Your task to perform on an android device: check battery use Image 0: 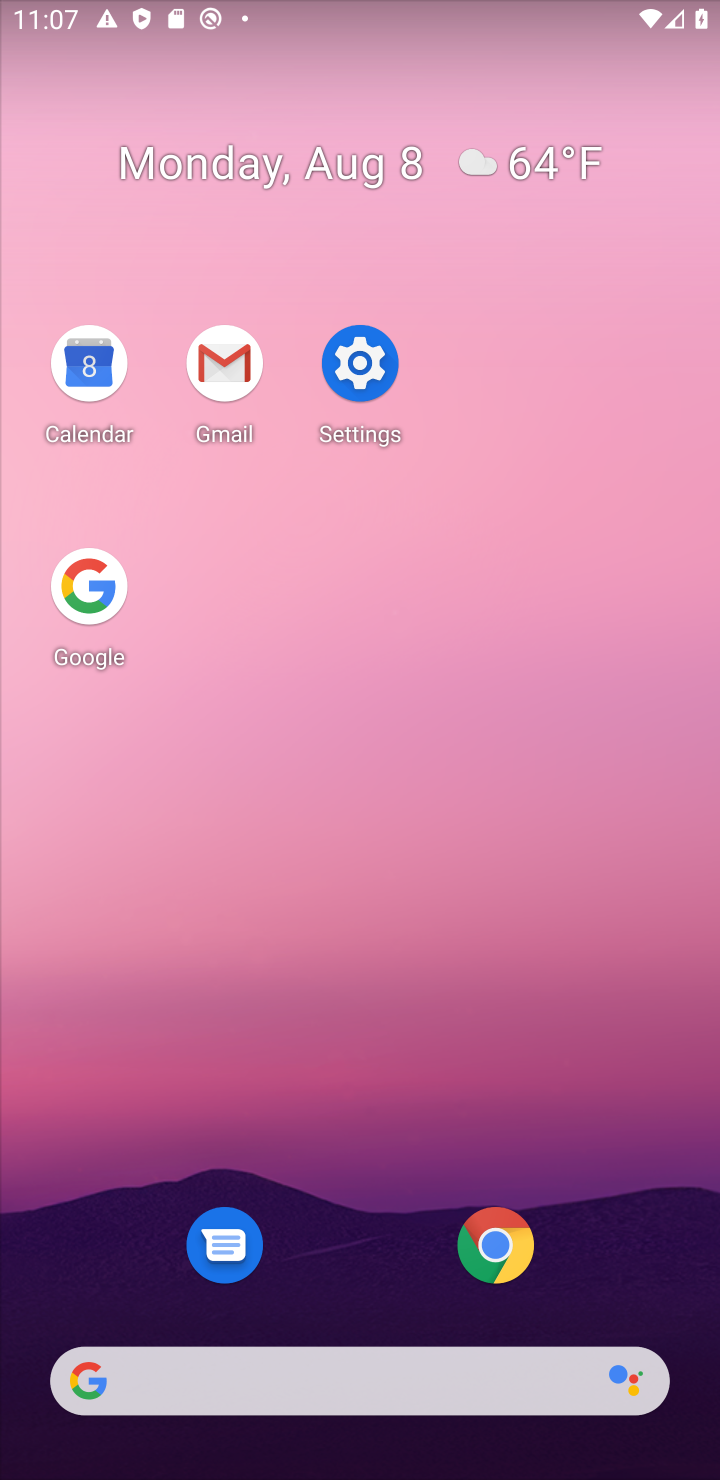
Step 0: click (359, 362)
Your task to perform on an android device: check battery use Image 1: 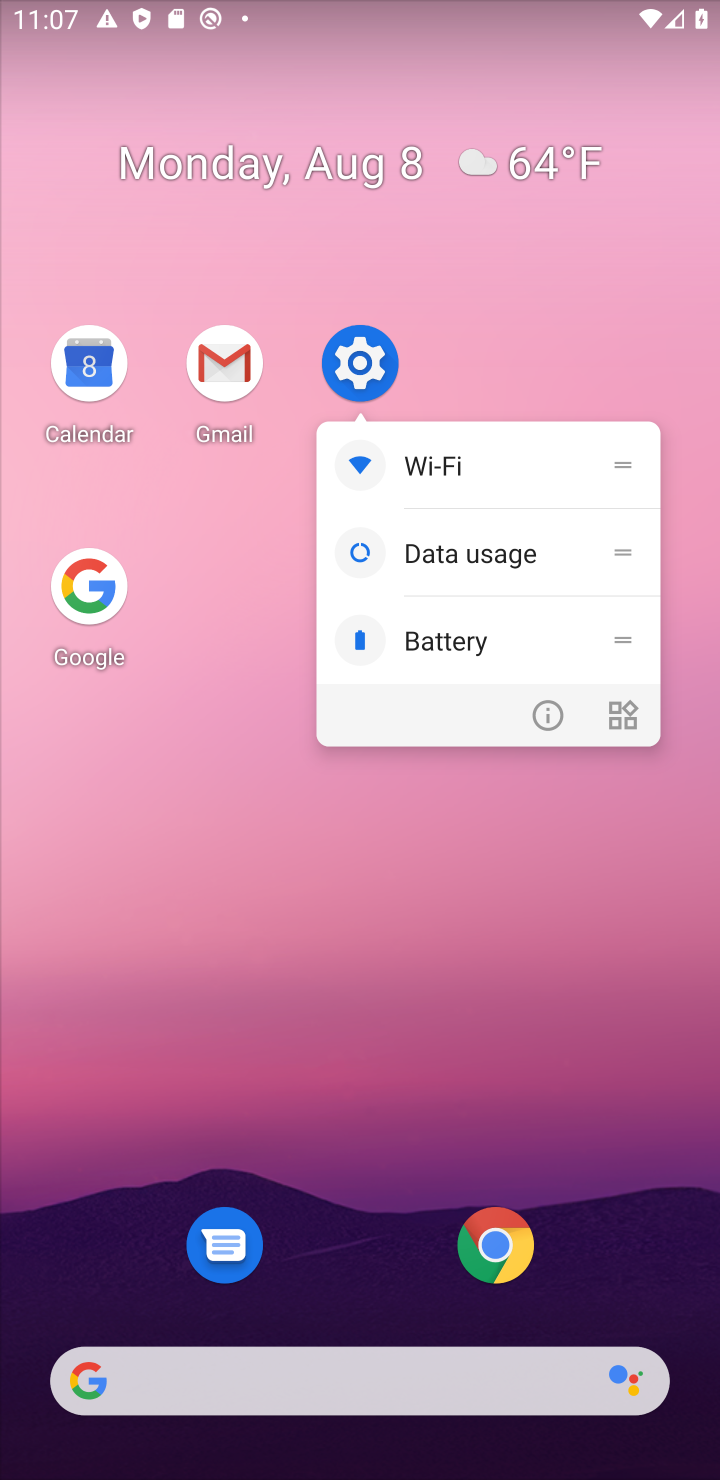
Step 1: click (361, 362)
Your task to perform on an android device: check battery use Image 2: 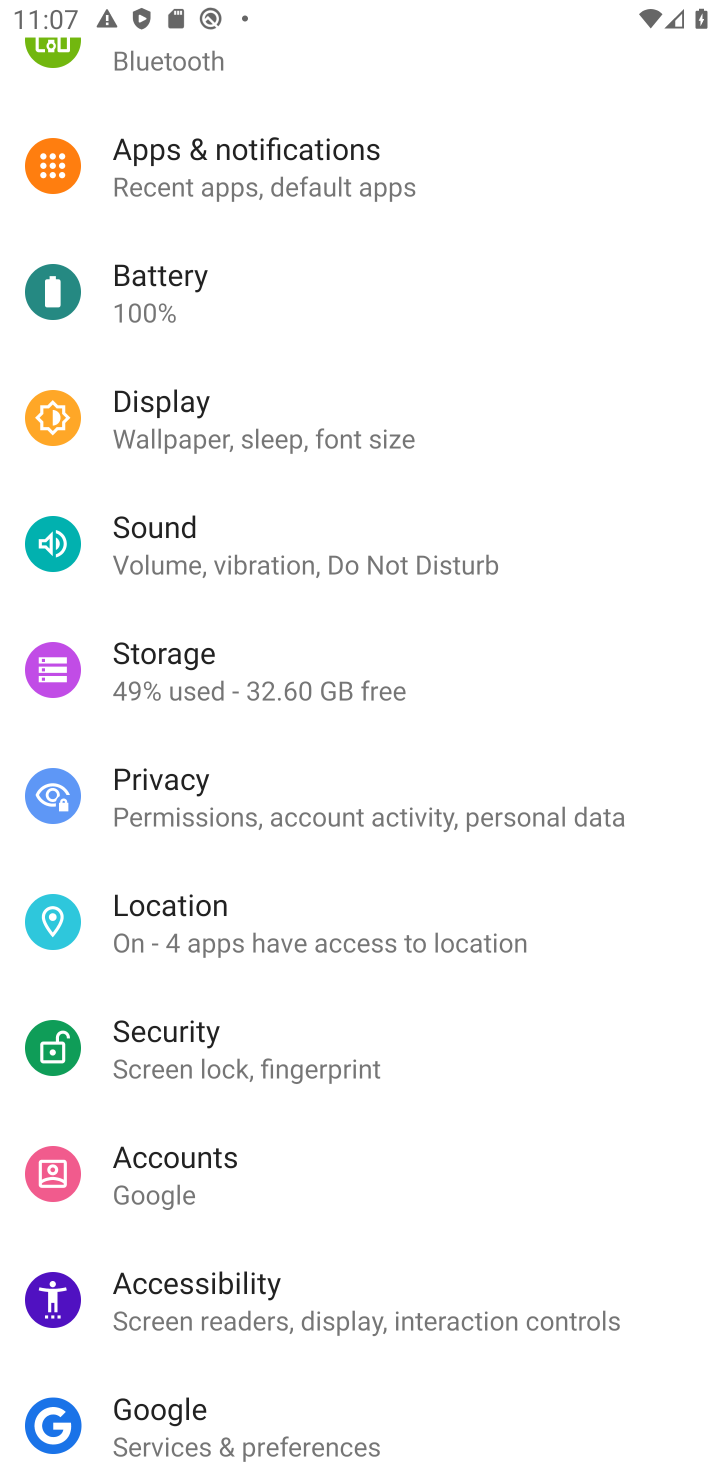
Step 2: click (271, 270)
Your task to perform on an android device: check battery use Image 3: 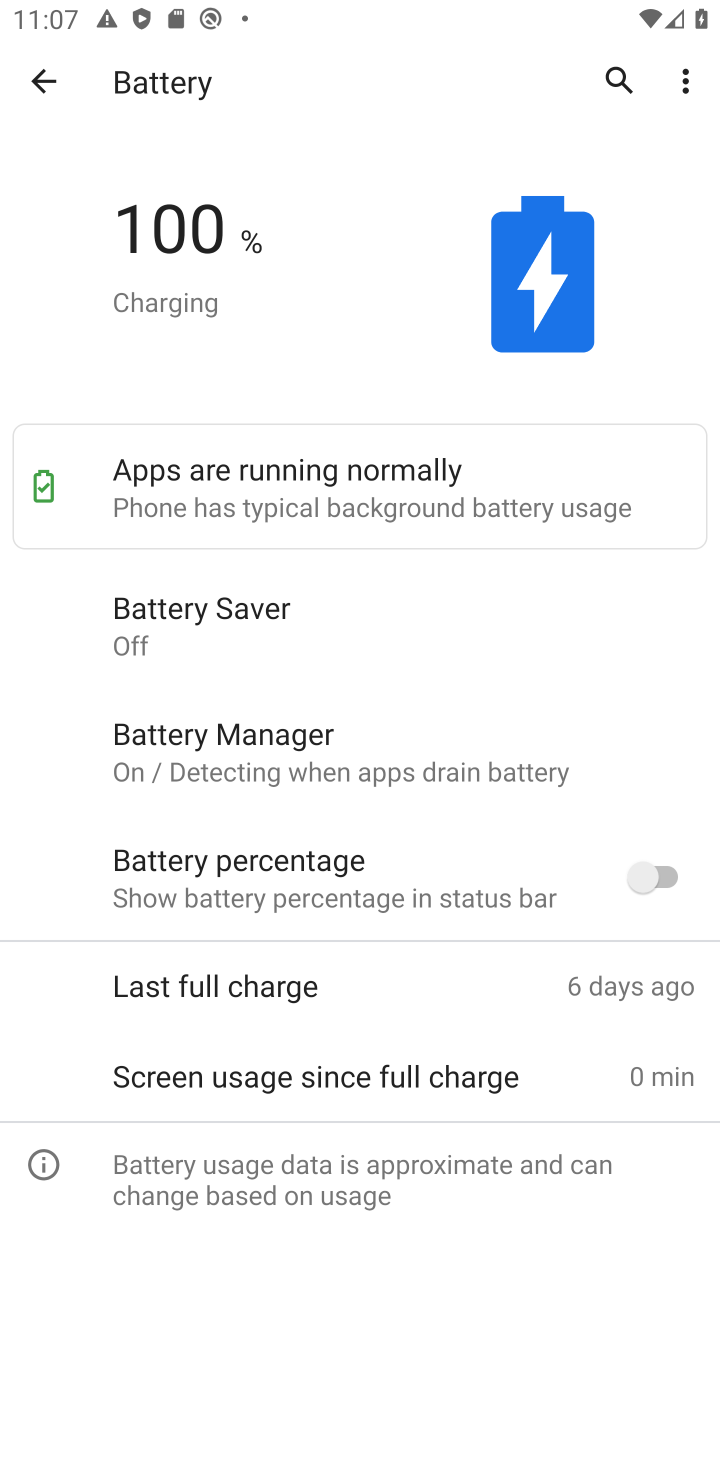
Step 3: click (687, 78)
Your task to perform on an android device: check battery use Image 4: 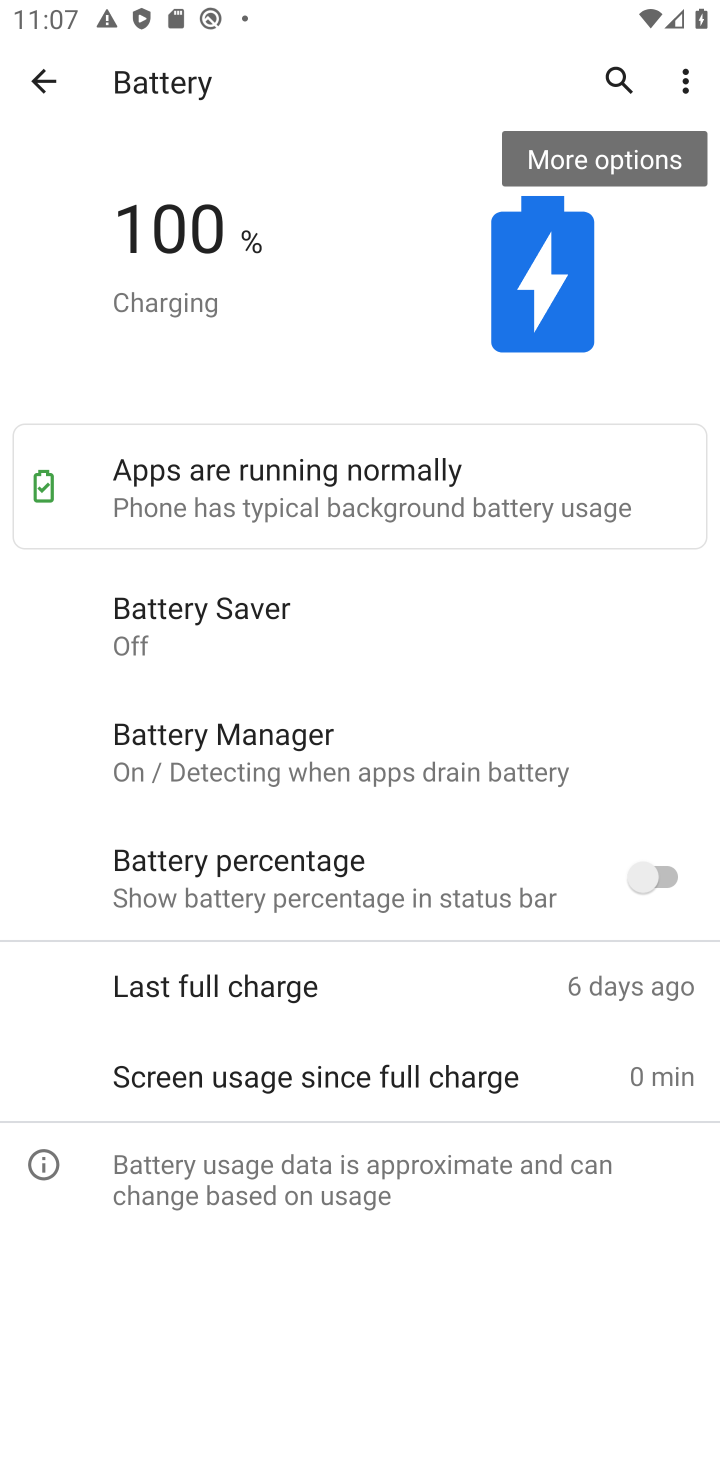
Step 4: click (583, 173)
Your task to perform on an android device: check battery use Image 5: 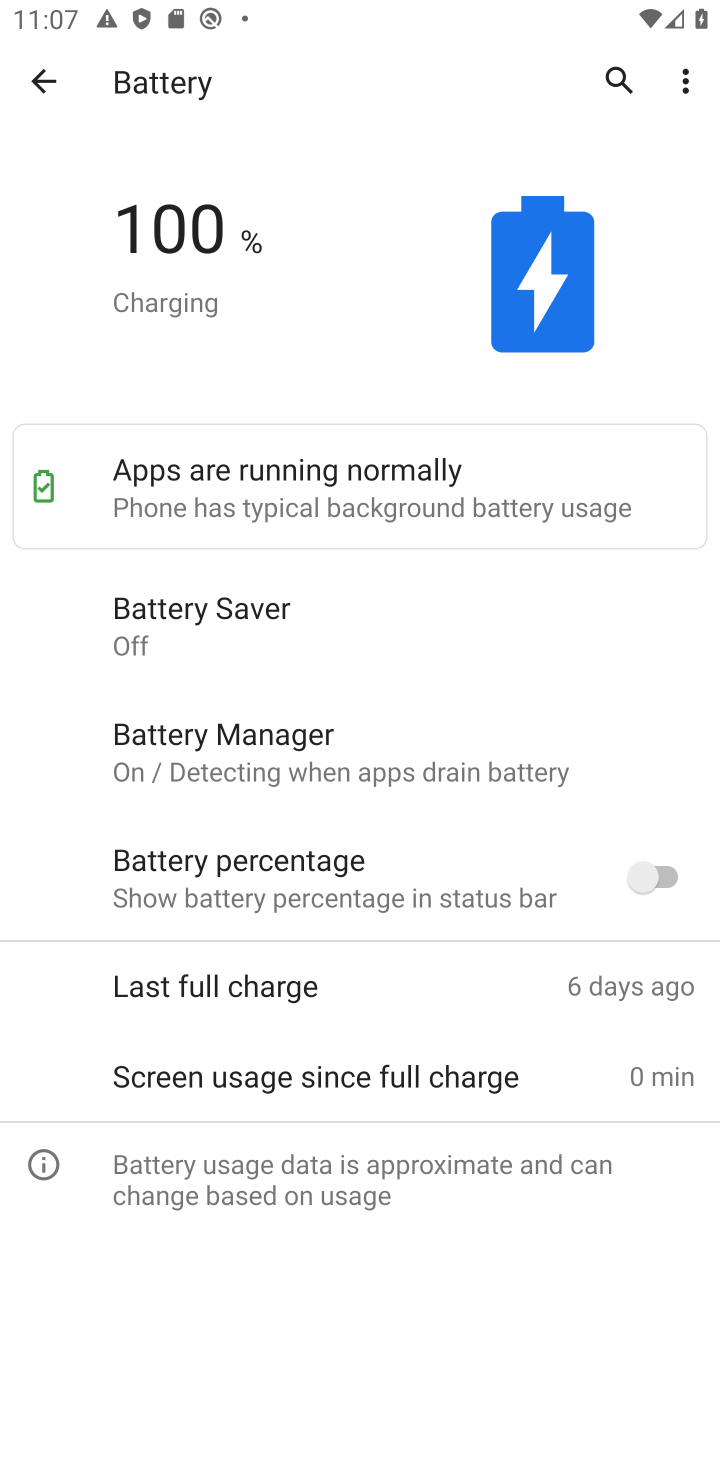
Step 5: click (715, 58)
Your task to perform on an android device: check battery use Image 6: 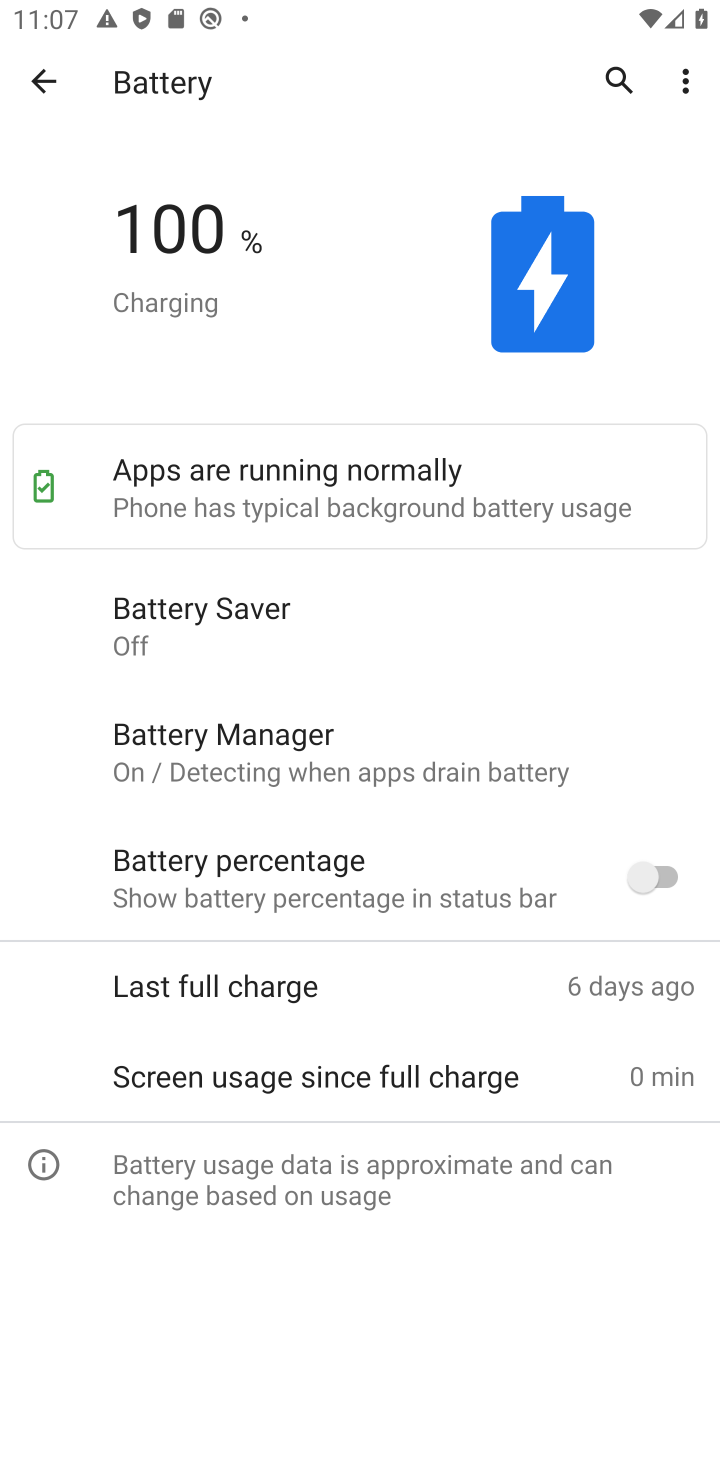
Step 6: click (624, 353)
Your task to perform on an android device: check battery use Image 7: 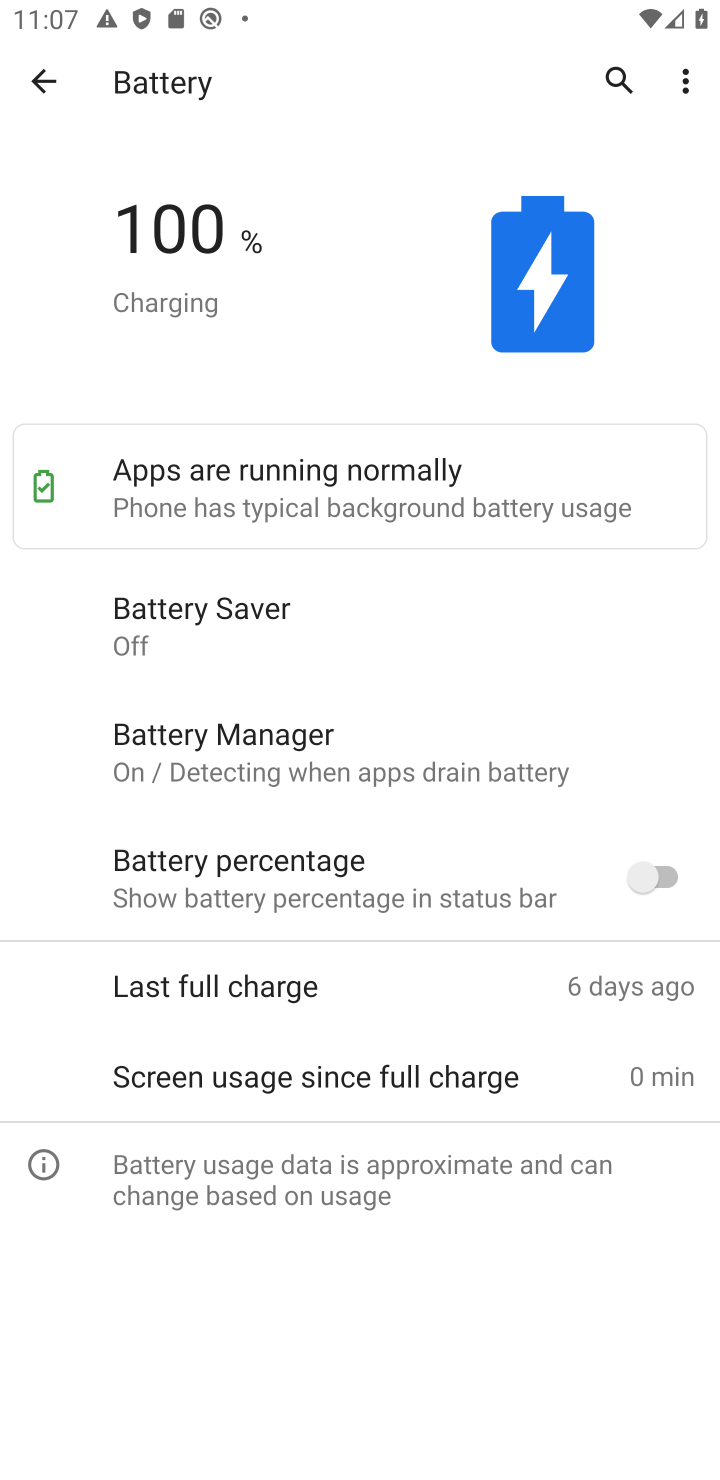
Step 7: click (690, 86)
Your task to perform on an android device: check battery use Image 8: 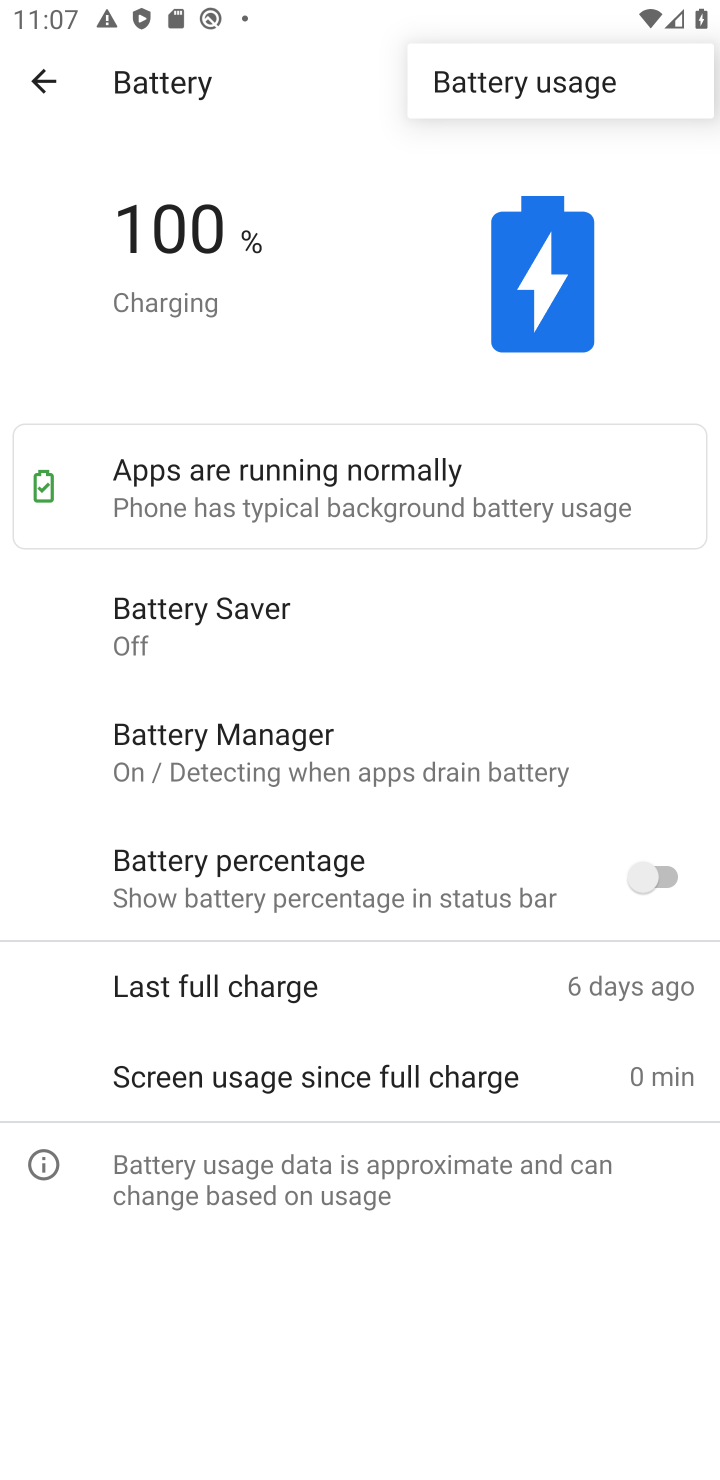
Step 8: click (609, 58)
Your task to perform on an android device: check battery use Image 9: 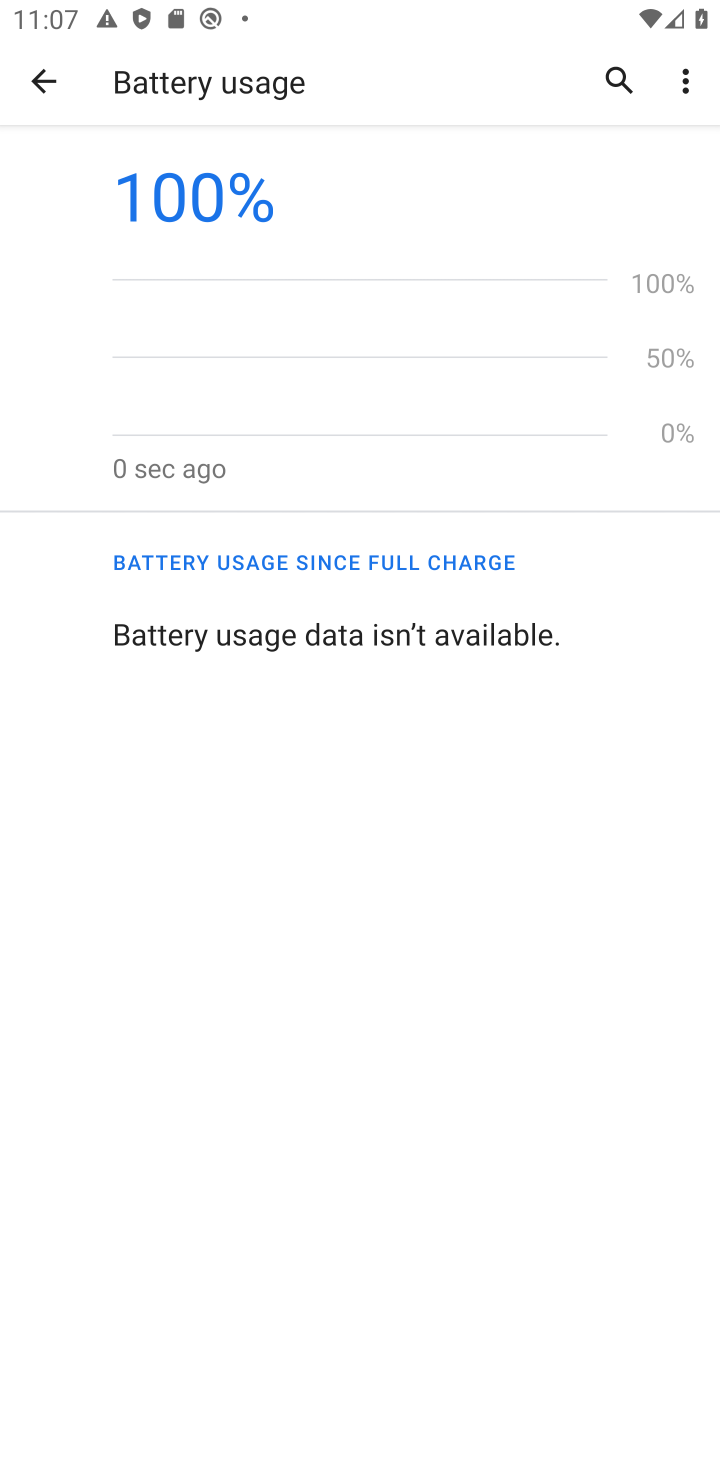
Step 9: task complete